Your task to perform on an android device: Open Google Image 0: 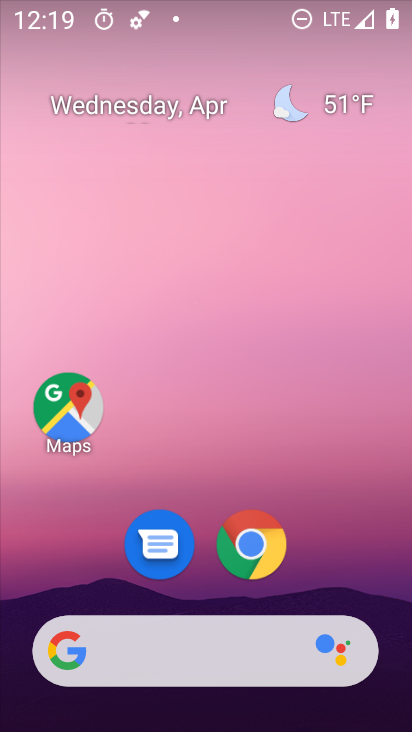
Step 0: drag from (344, 571) to (360, 167)
Your task to perform on an android device: Open Google Image 1: 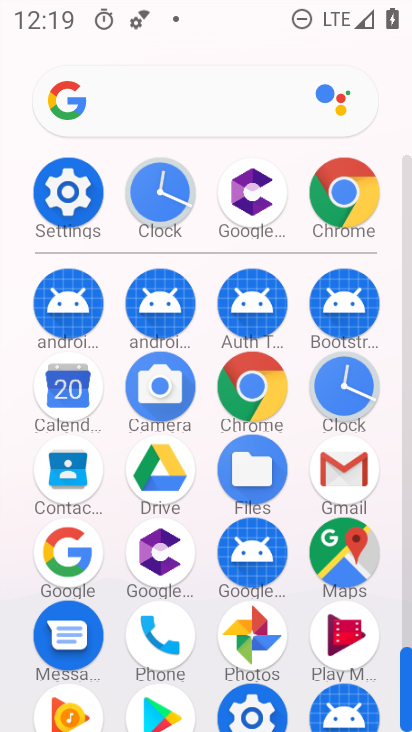
Step 1: click (46, 568)
Your task to perform on an android device: Open Google Image 2: 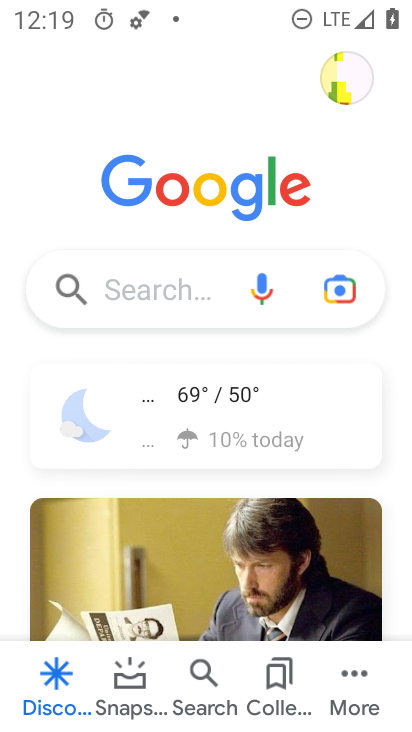
Step 2: task complete